Your task to perform on an android device: install app "Booking.com: Hotels and more" Image 0: 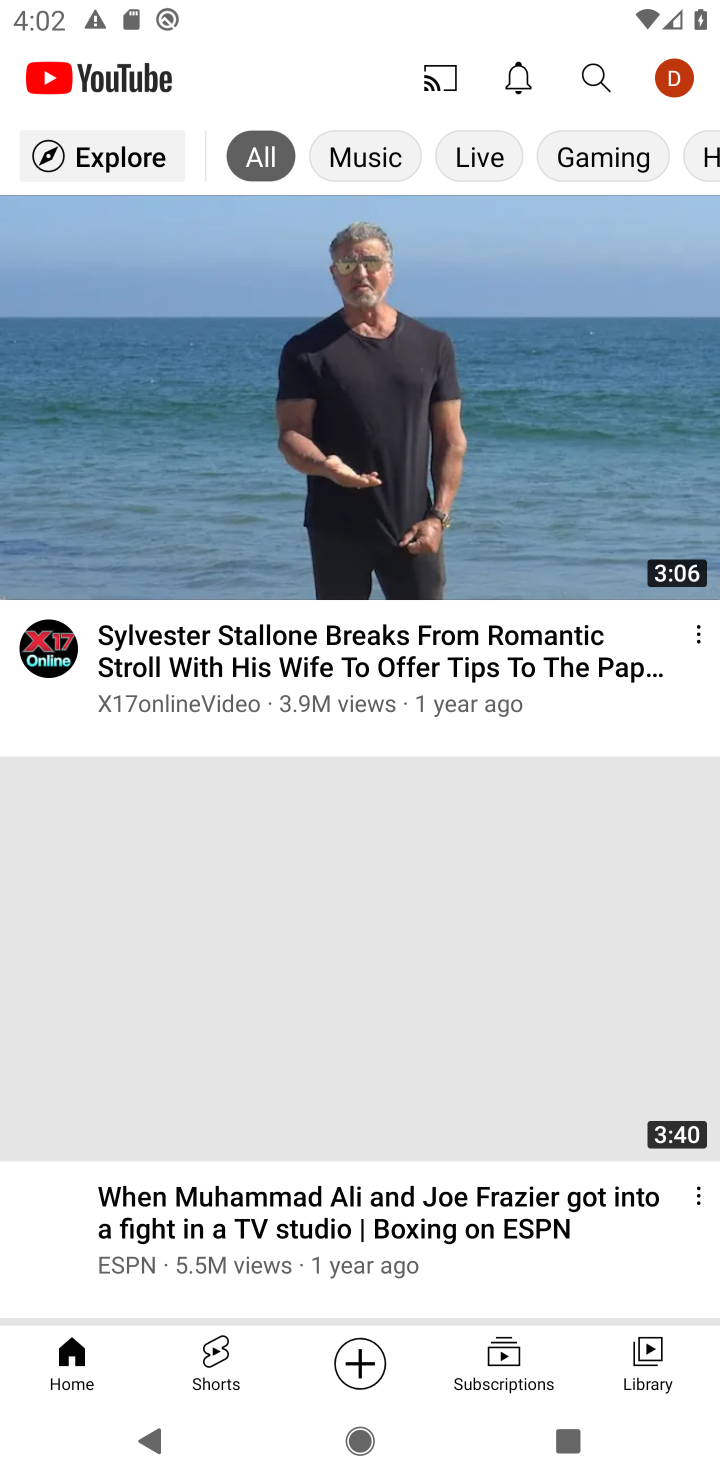
Step 0: press back button
Your task to perform on an android device: install app "Booking.com: Hotels and more" Image 1: 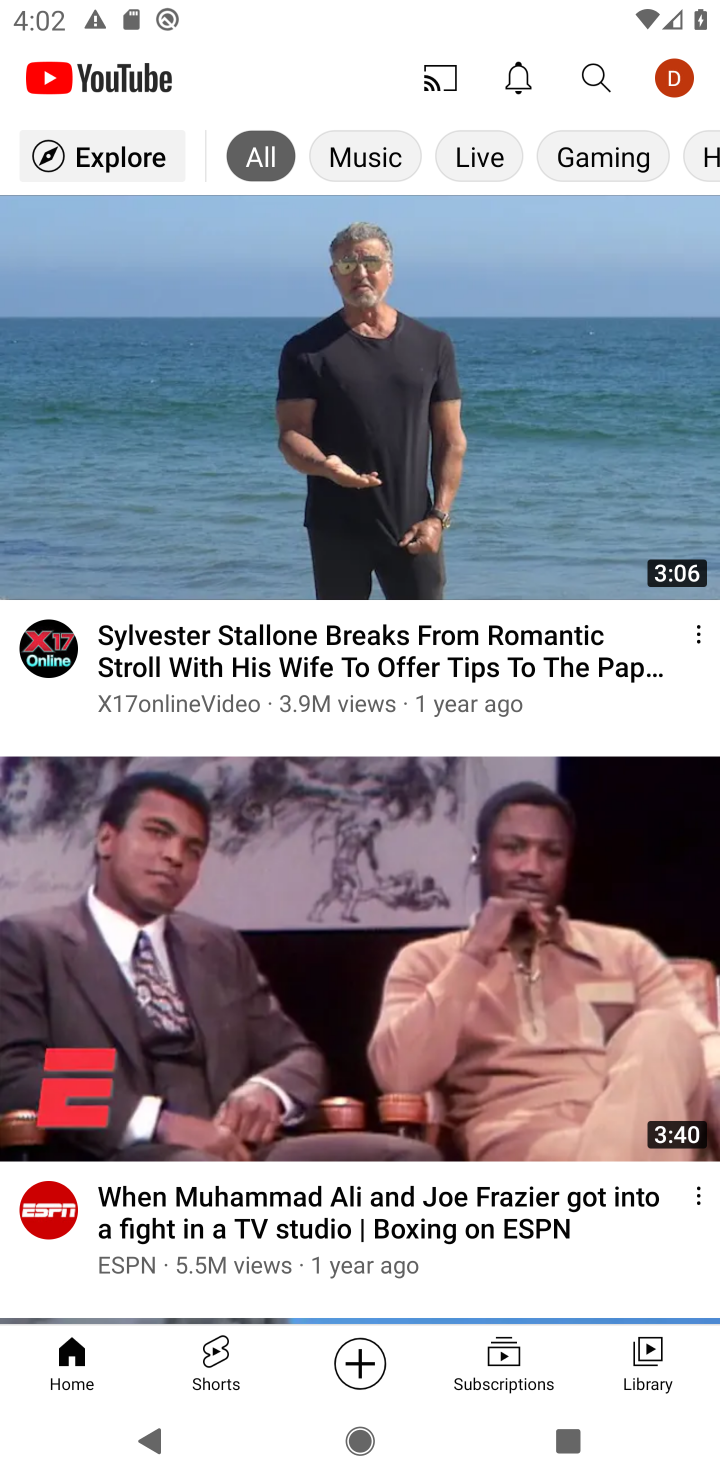
Step 1: press back button
Your task to perform on an android device: install app "Booking.com: Hotels and more" Image 2: 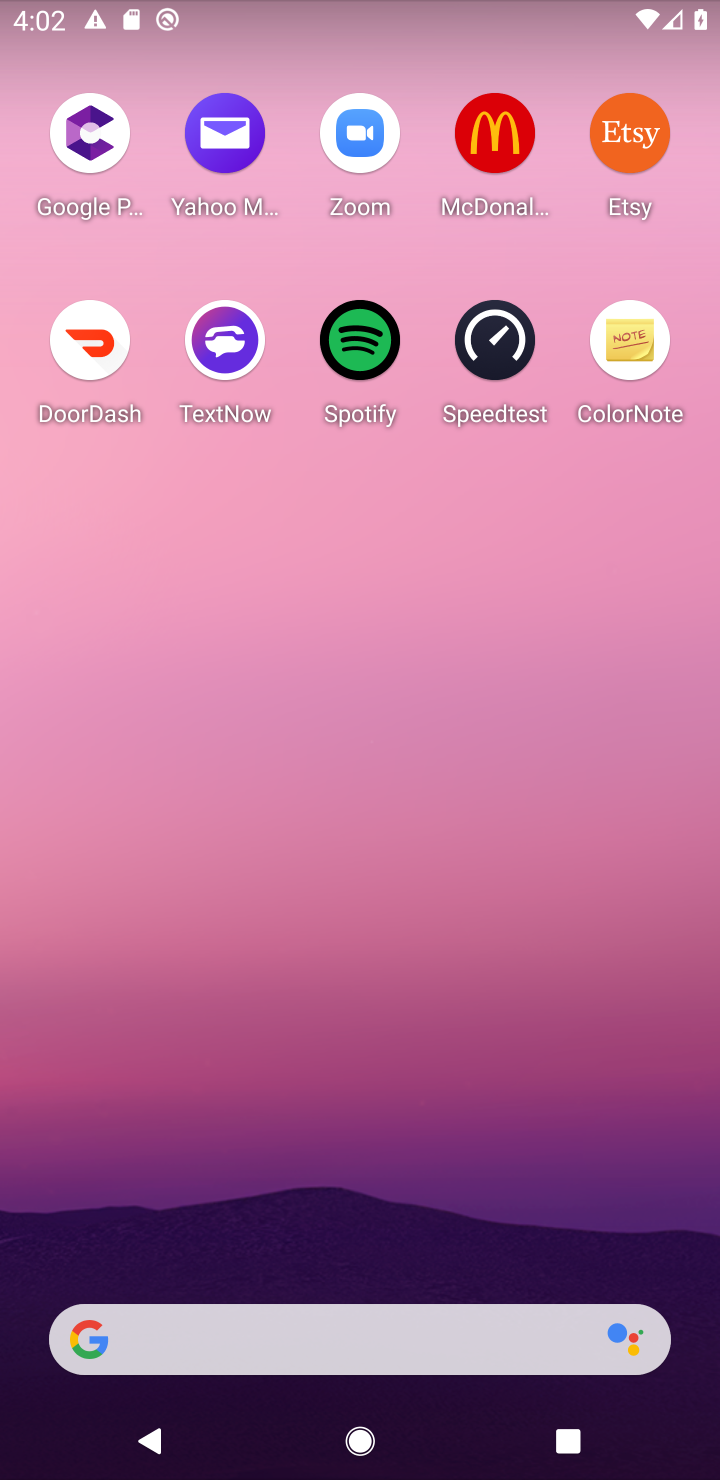
Step 2: press back button
Your task to perform on an android device: install app "Booking.com: Hotels and more" Image 3: 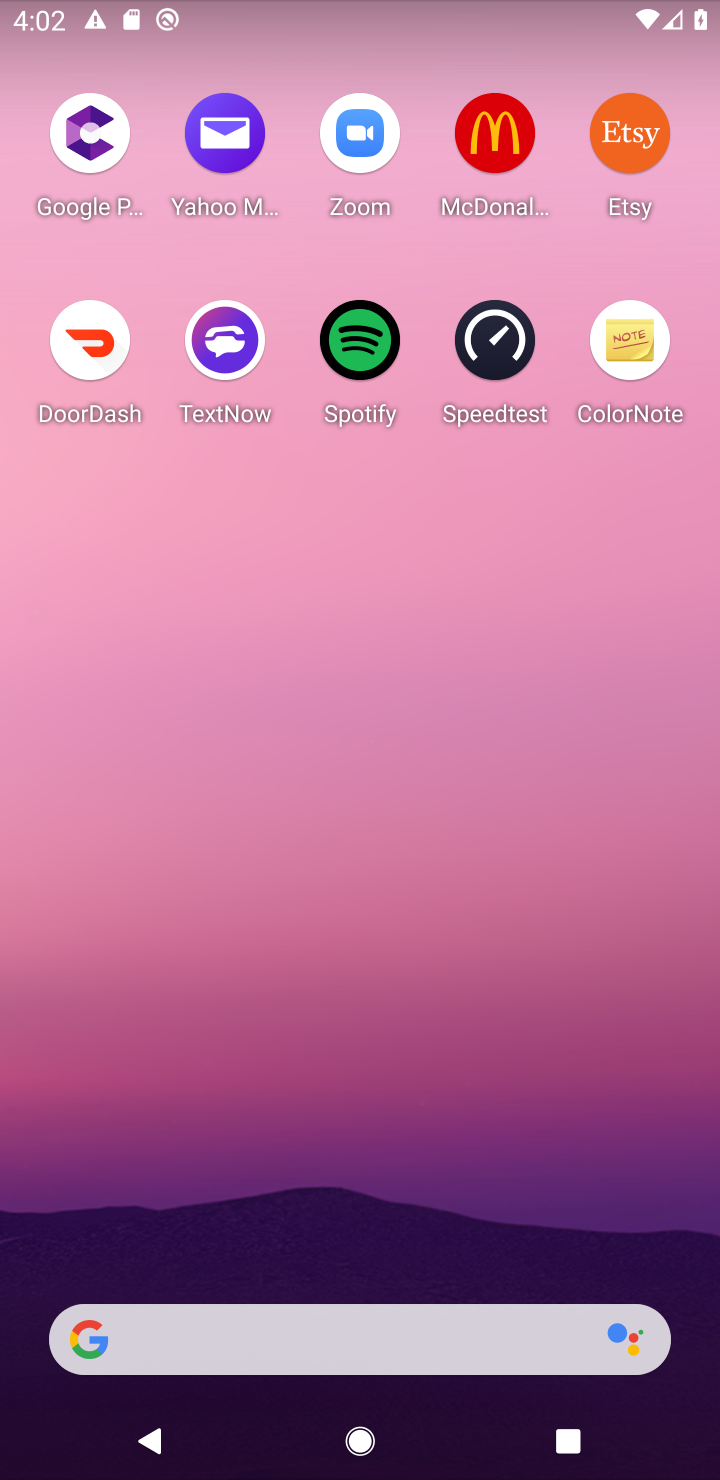
Step 3: press home button
Your task to perform on an android device: install app "Booking.com: Hotels and more" Image 4: 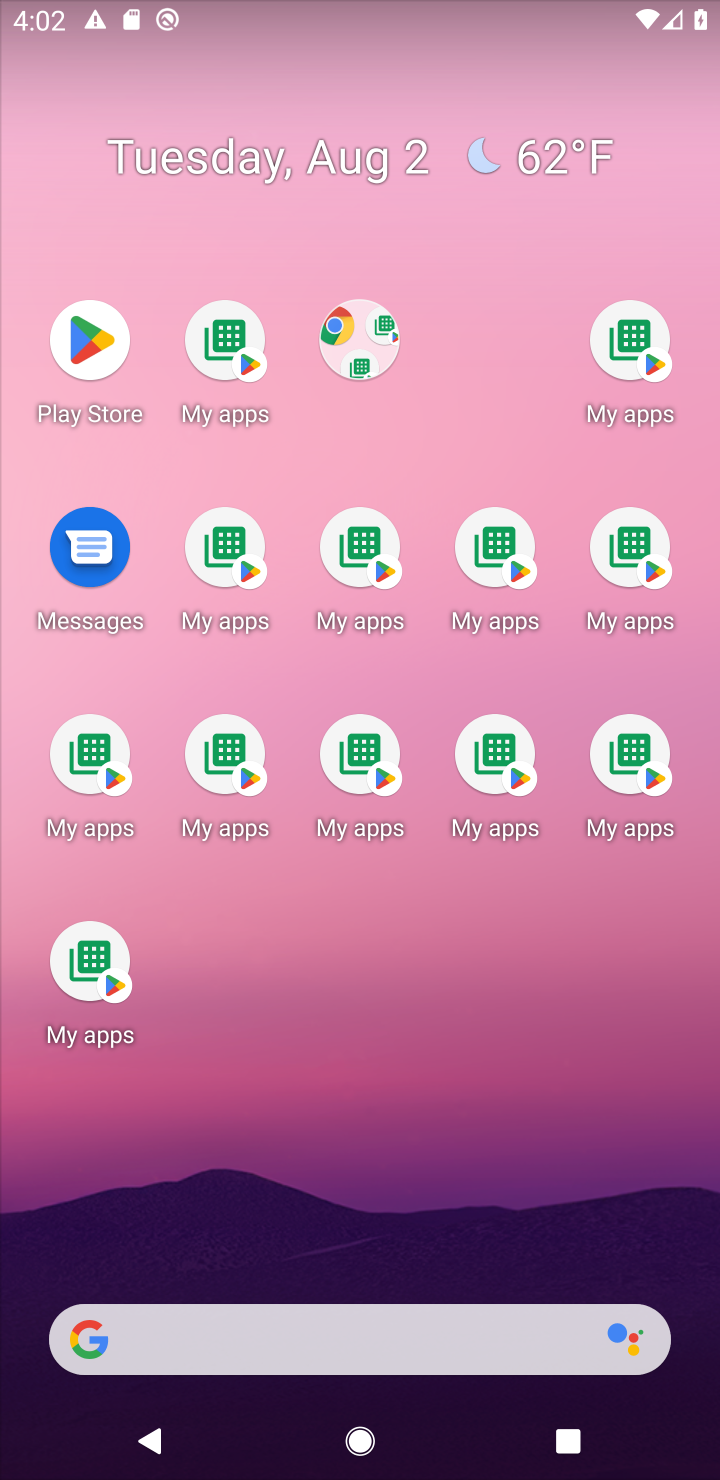
Step 4: drag from (390, 988) to (272, 187)
Your task to perform on an android device: install app "Booking.com: Hotels and more" Image 5: 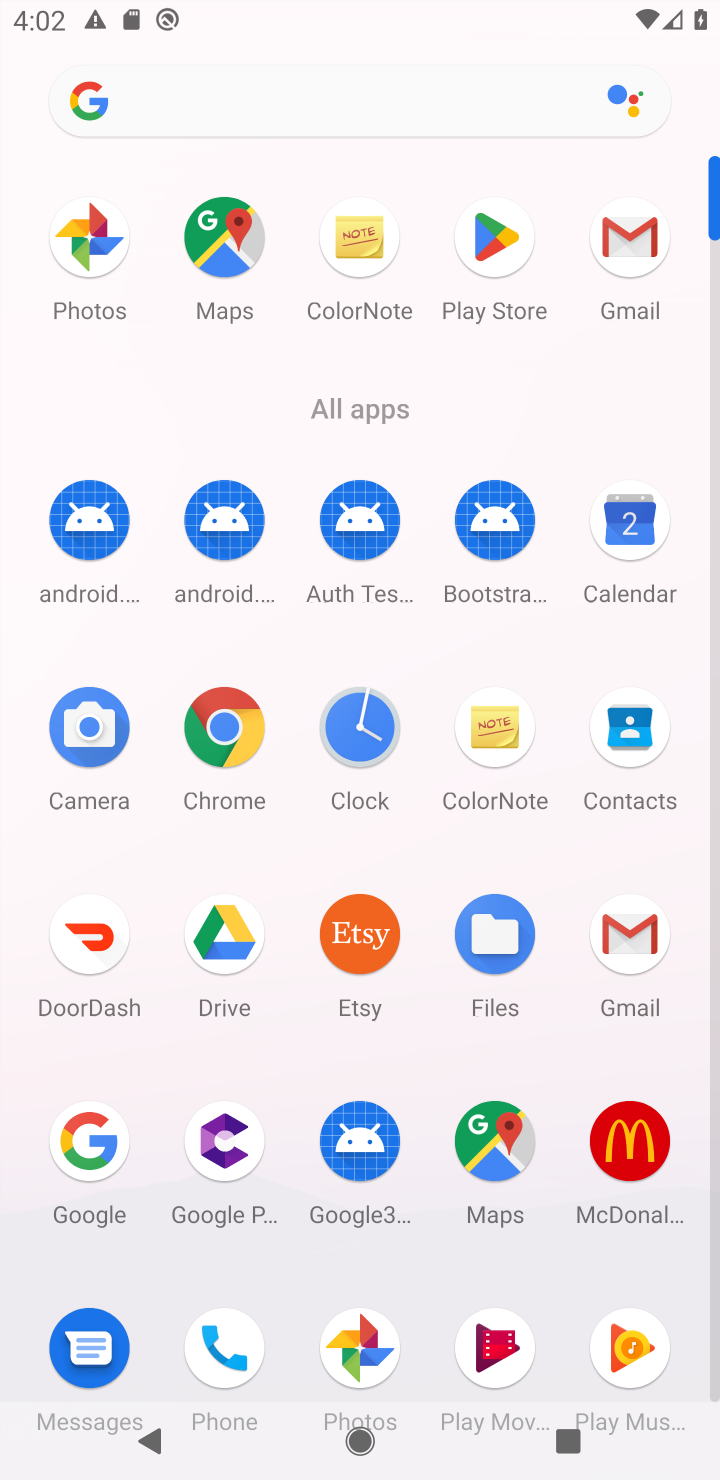
Step 5: click (483, 259)
Your task to perform on an android device: install app "Booking.com: Hotels and more" Image 6: 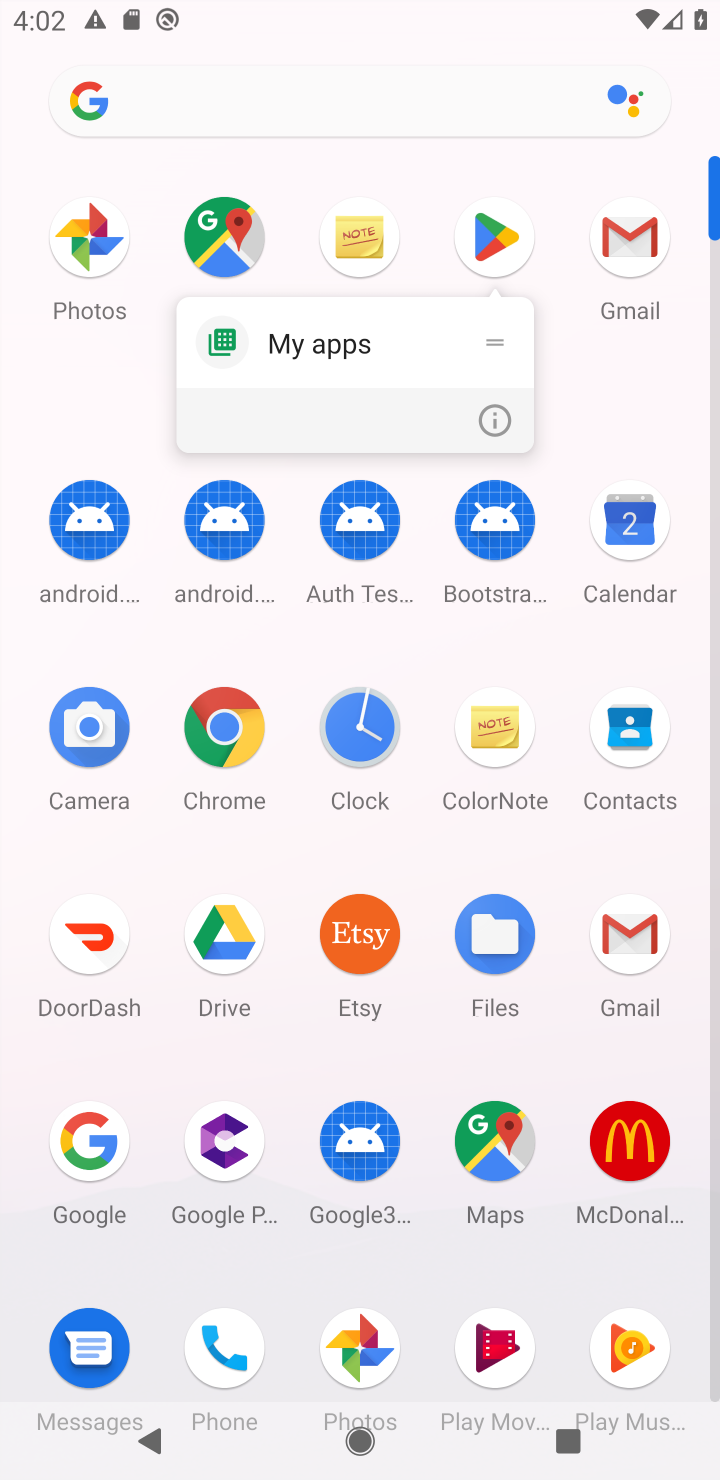
Step 6: click (483, 259)
Your task to perform on an android device: install app "Booking.com: Hotels and more" Image 7: 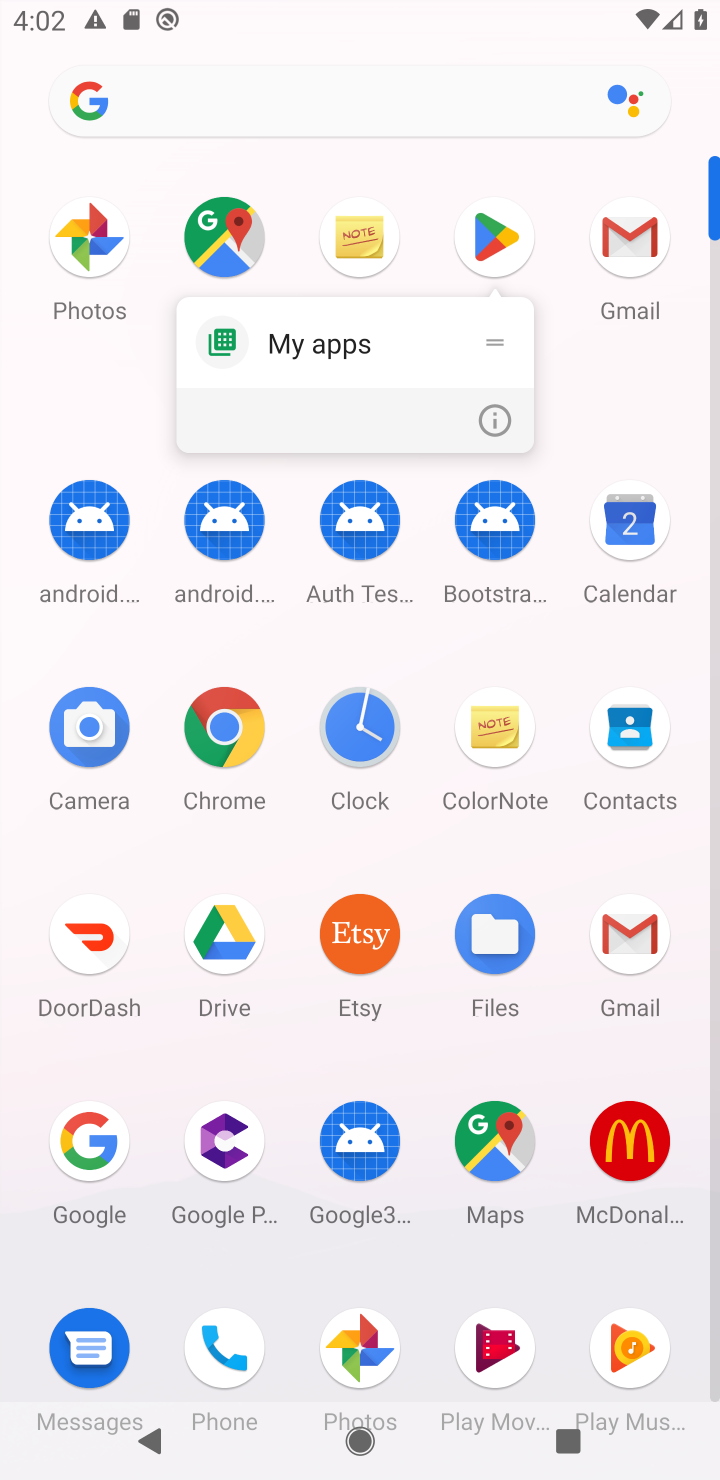
Step 7: click (489, 250)
Your task to perform on an android device: install app "Booking.com: Hotels and more" Image 8: 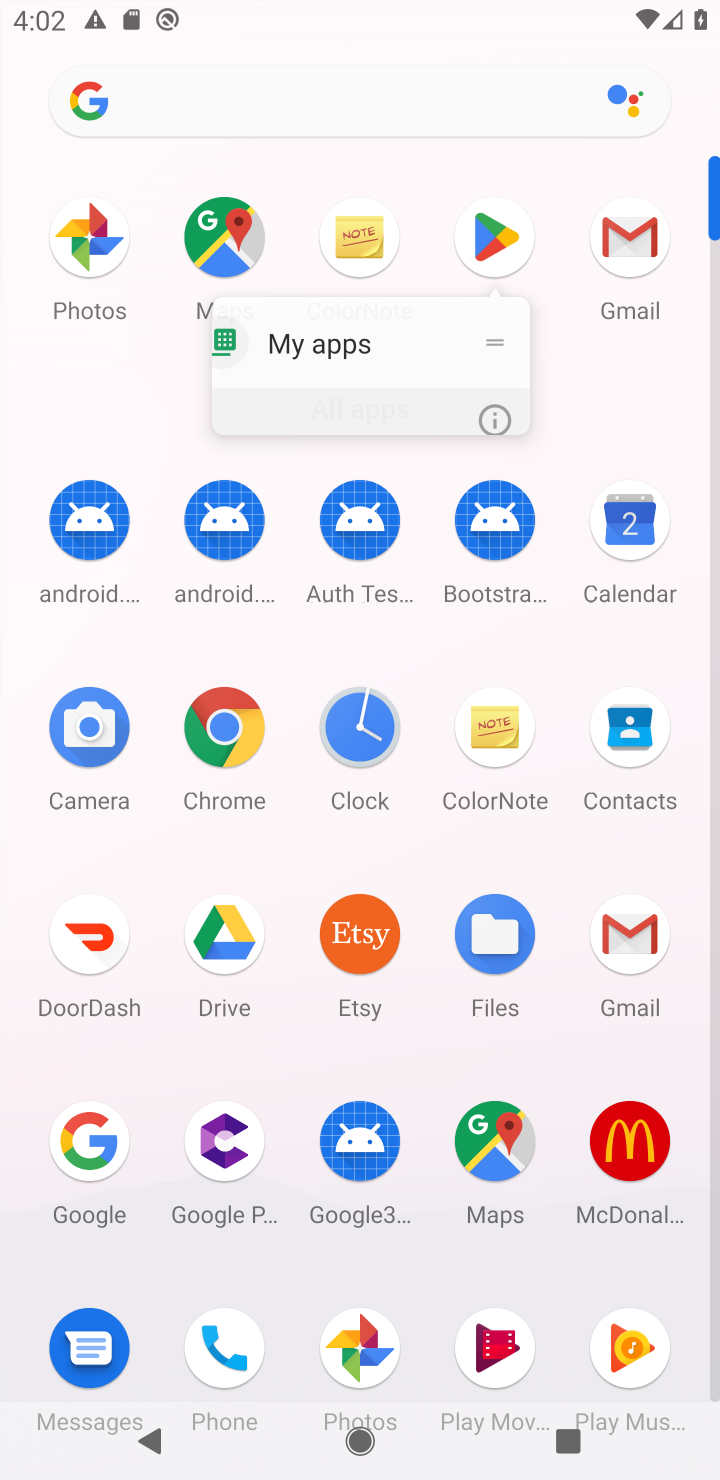
Step 8: click (324, 334)
Your task to perform on an android device: install app "Booking.com: Hotels and more" Image 9: 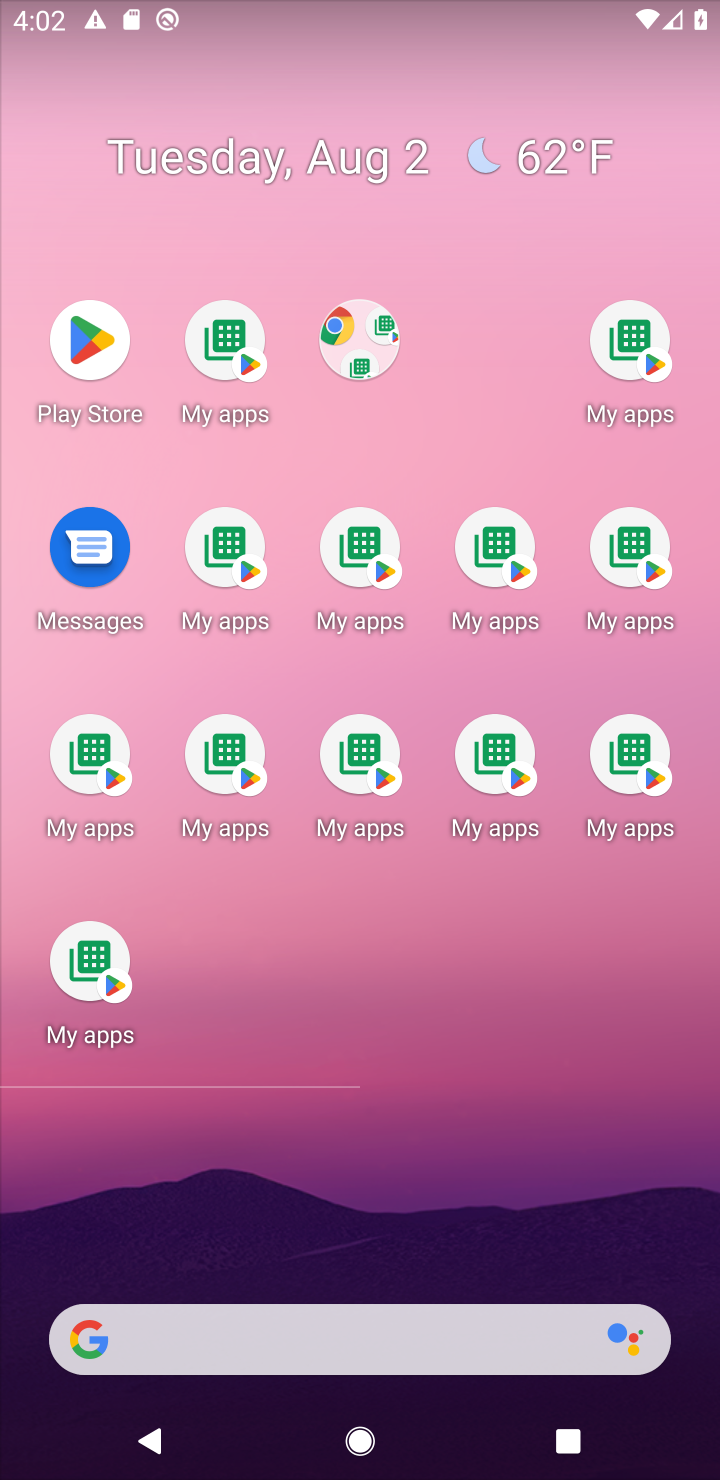
Step 9: click (489, 299)
Your task to perform on an android device: install app "Booking.com: Hotels and more" Image 10: 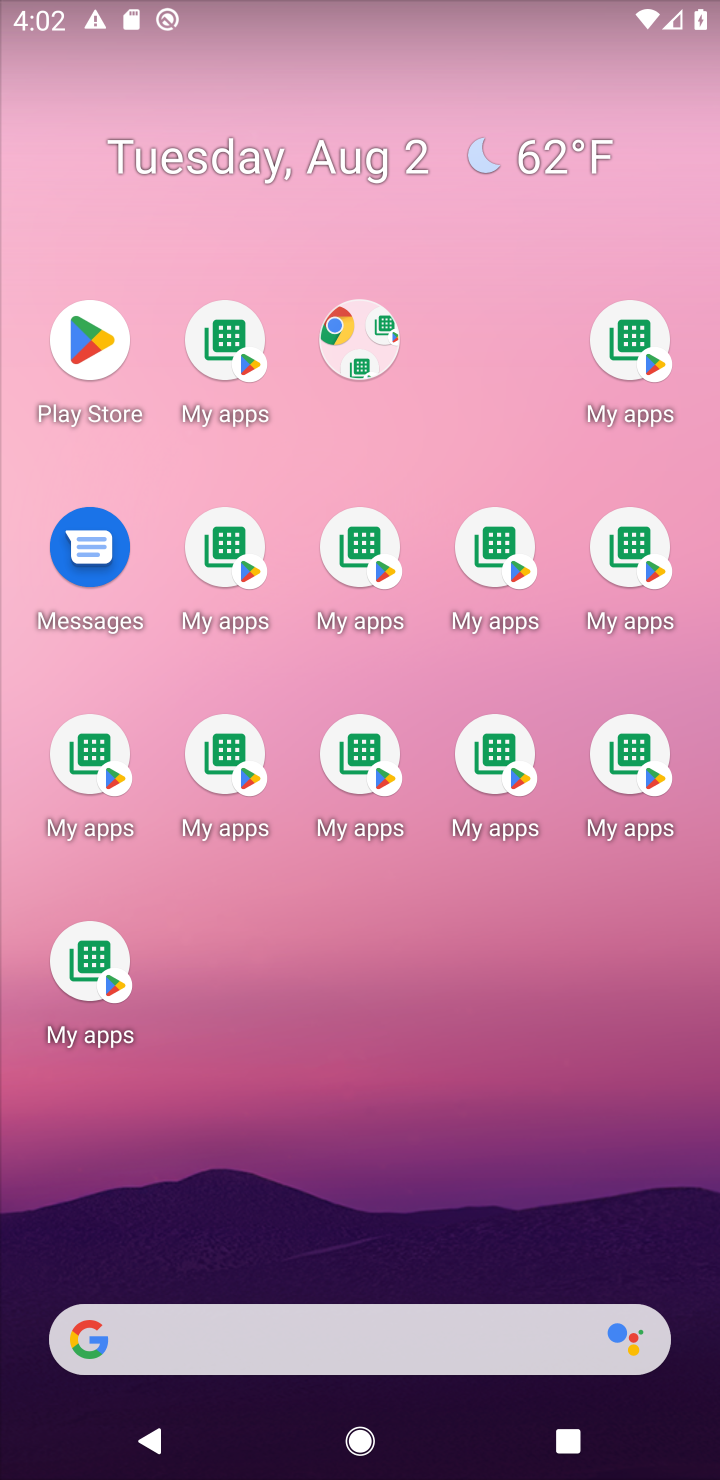
Step 10: click (50, 316)
Your task to perform on an android device: install app "Booking.com: Hotels and more" Image 11: 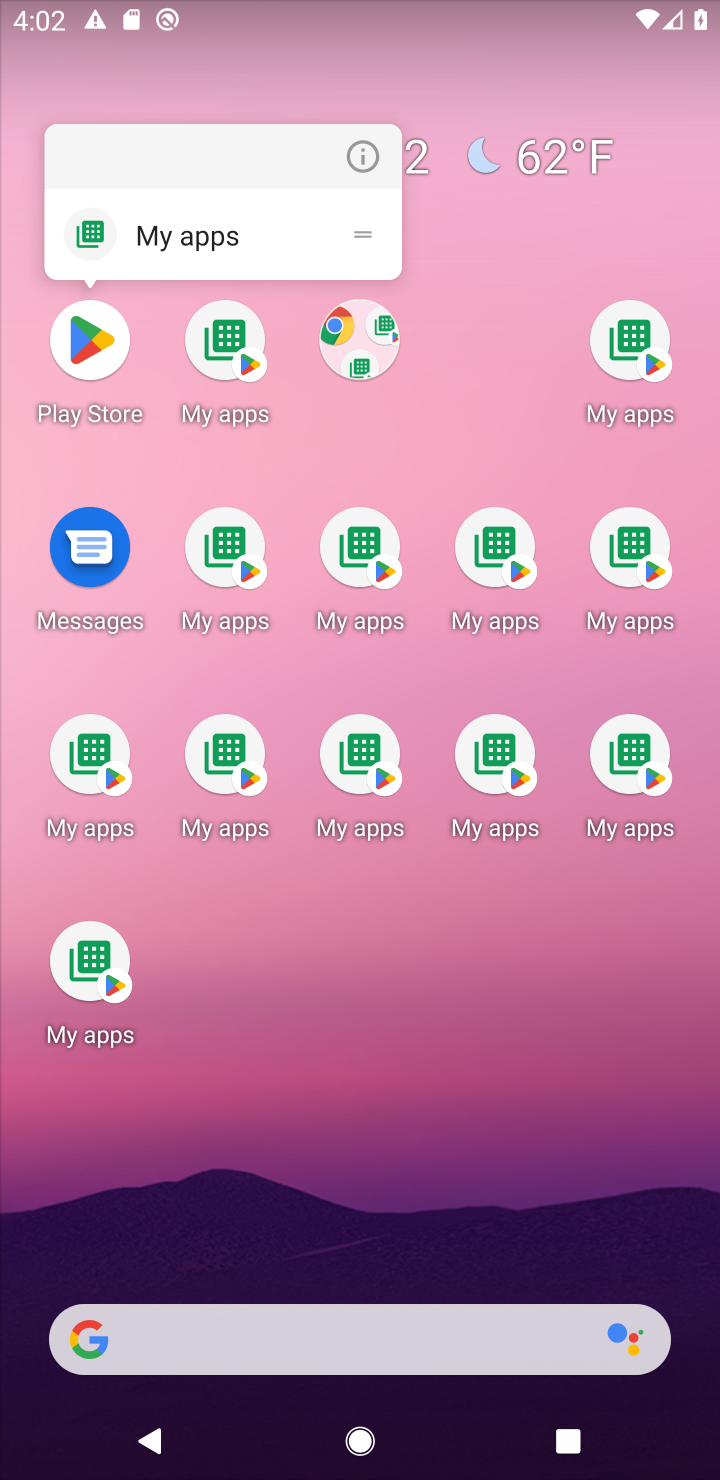
Step 11: click (72, 340)
Your task to perform on an android device: install app "Booking.com: Hotels and more" Image 12: 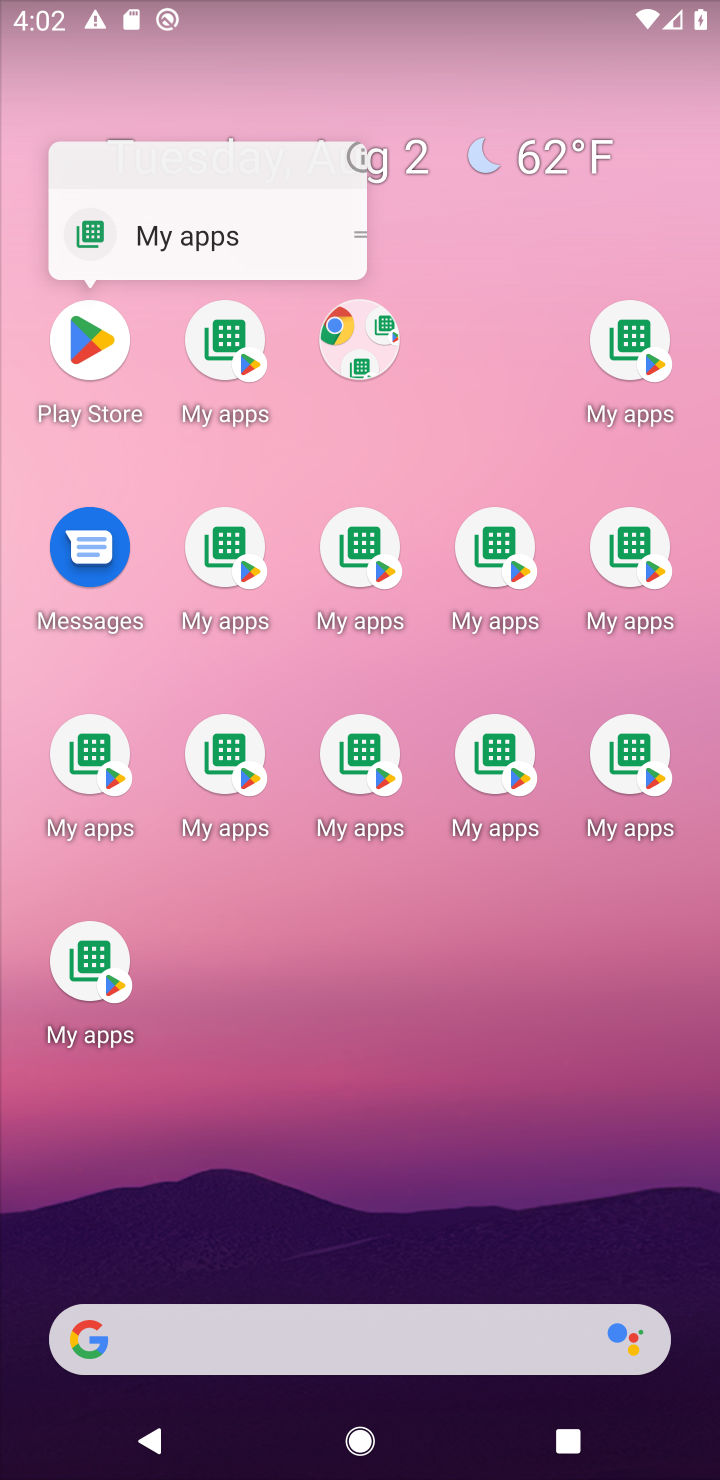
Step 12: click (73, 333)
Your task to perform on an android device: install app "Booking.com: Hotels and more" Image 13: 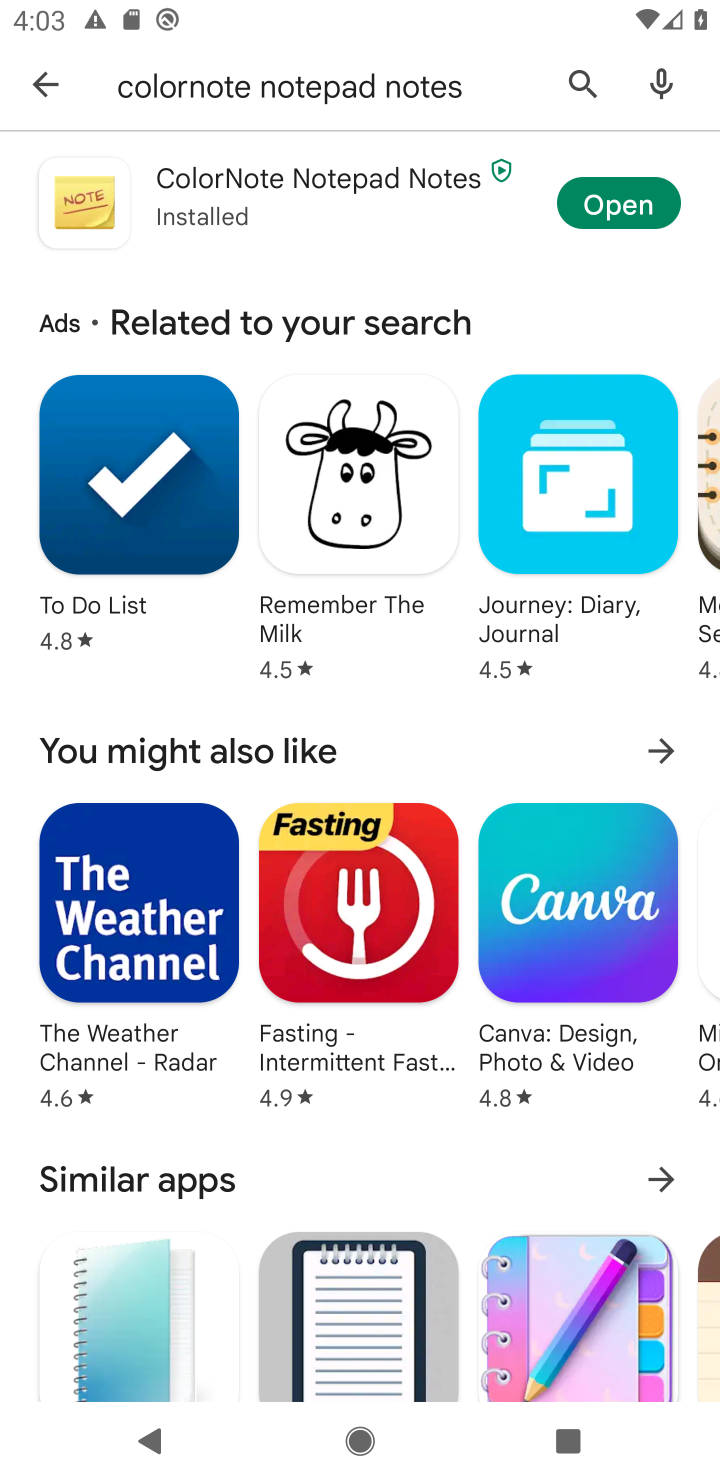
Step 13: click (573, 81)
Your task to perform on an android device: install app "Booking.com: Hotels and more" Image 14: 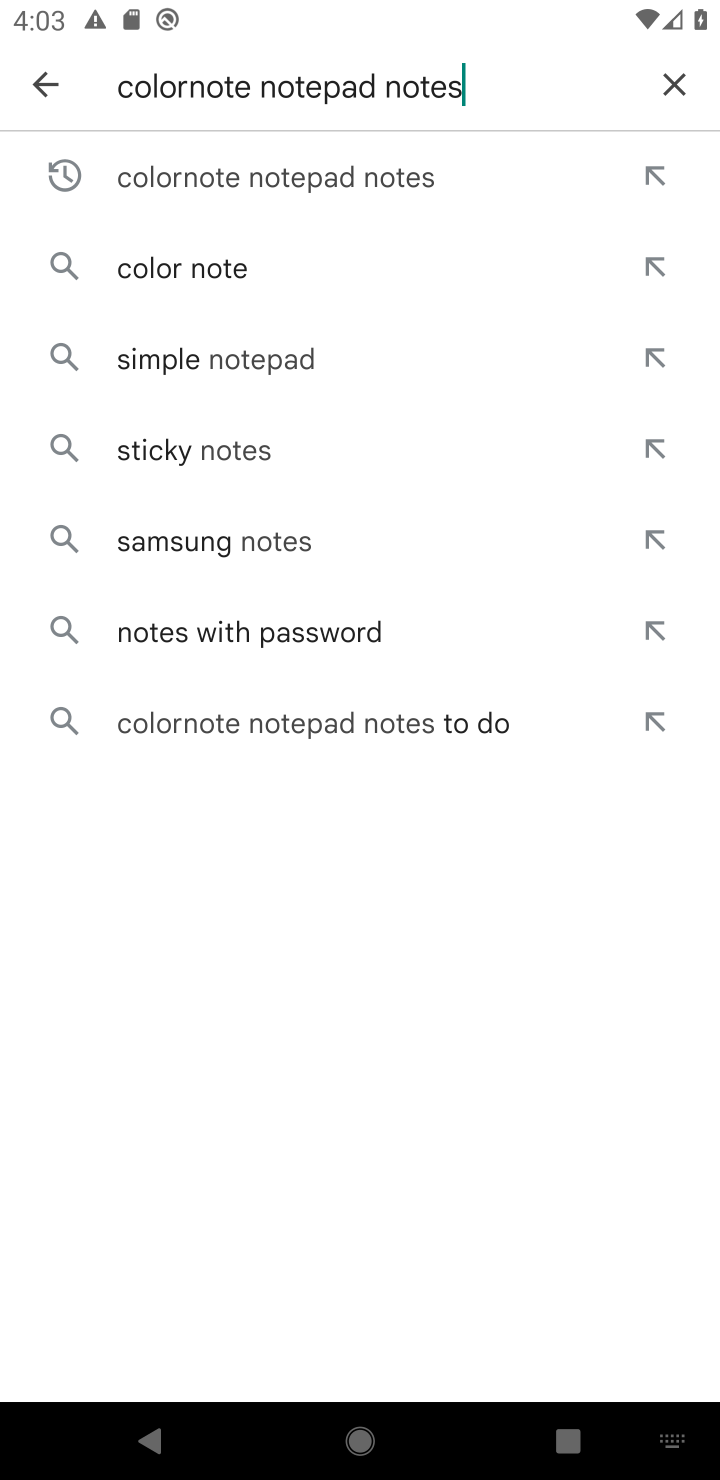
Step 14: click (654, 66)
Your task to perform on an android device: install app "Booking.com: Hotels and more" Image 15: 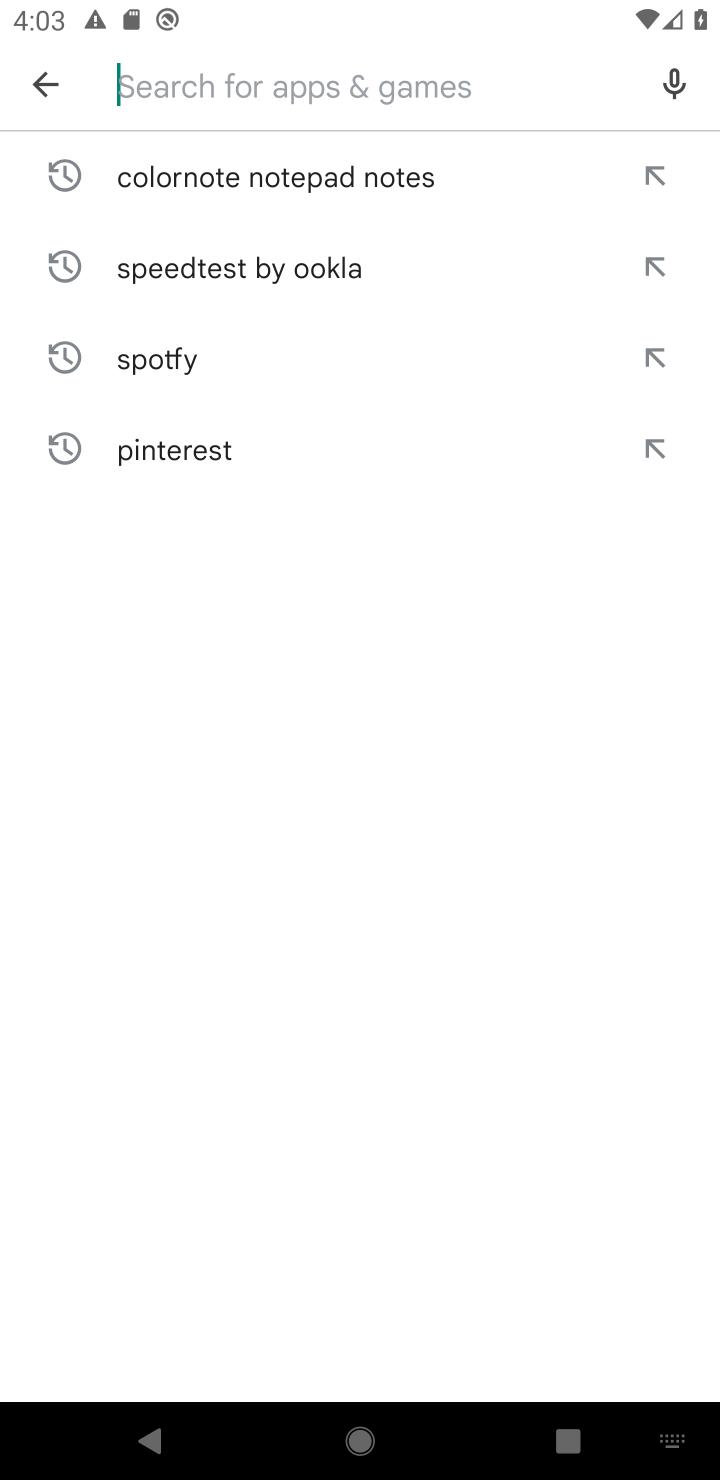
Step 15: type "booking .com"
Your task to perform on an android device: install app "Booking.com: Hotels and more" Image 16: 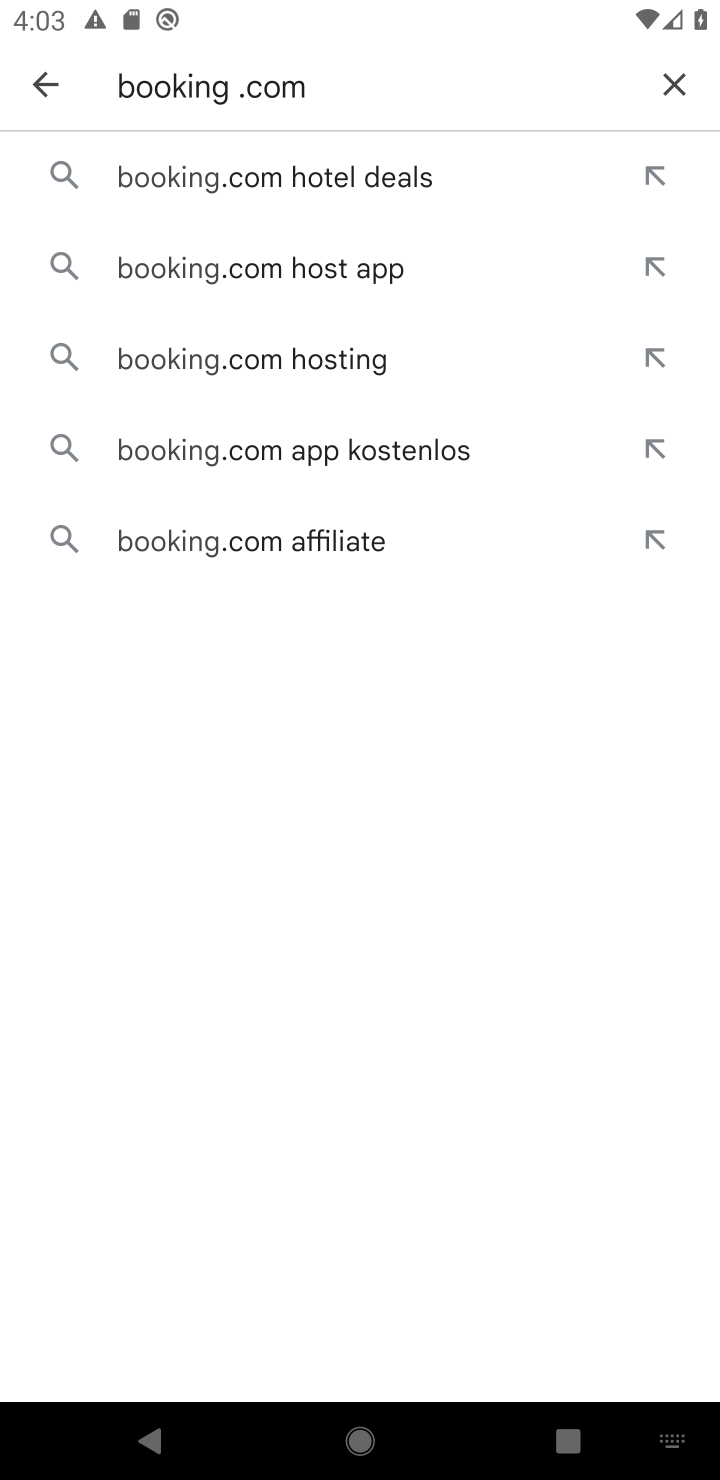
Step 16: click (245, 186)
Your task to perform on an android device: install app "Booking.com: Hotels and more" Image 17: 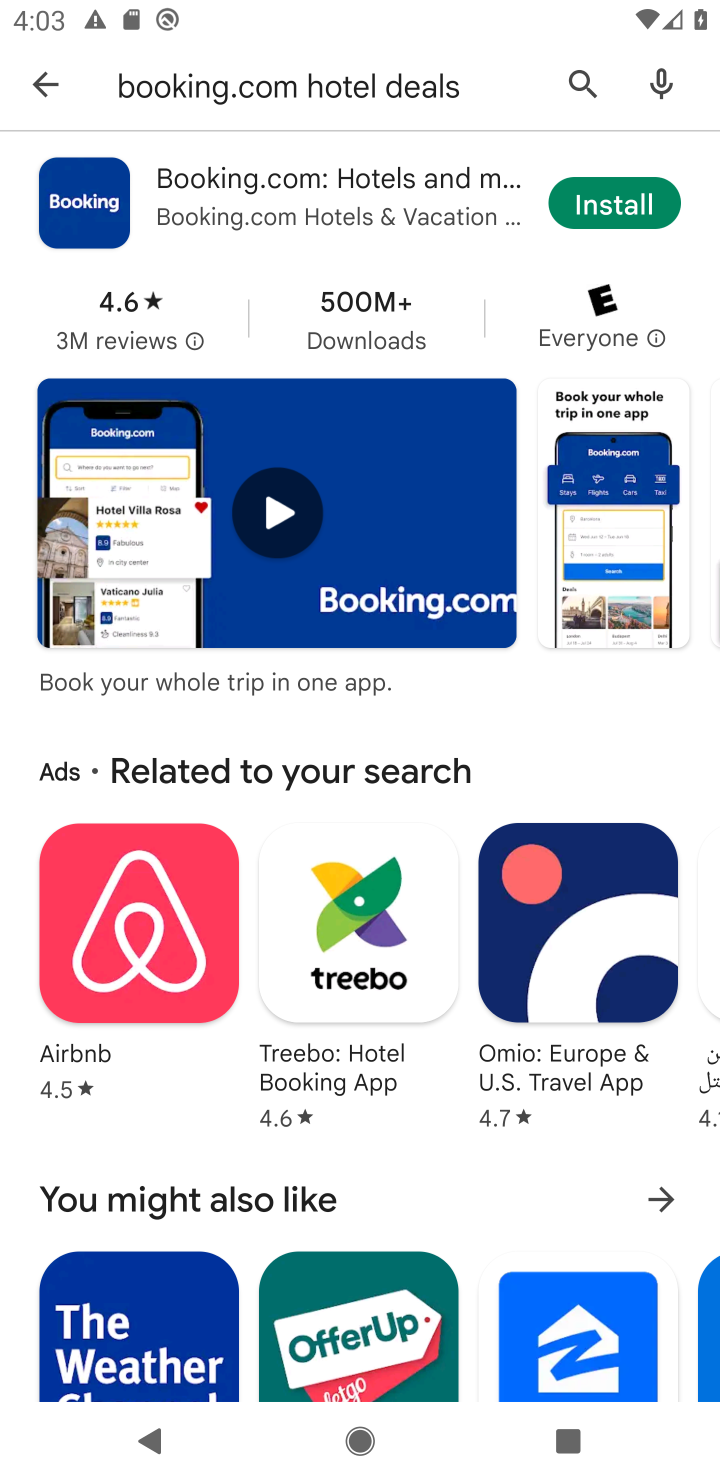
Step 17: click (615, 201)
Your task to perform on an android device: install app "Booking.com: Hotels and more" Image 18: 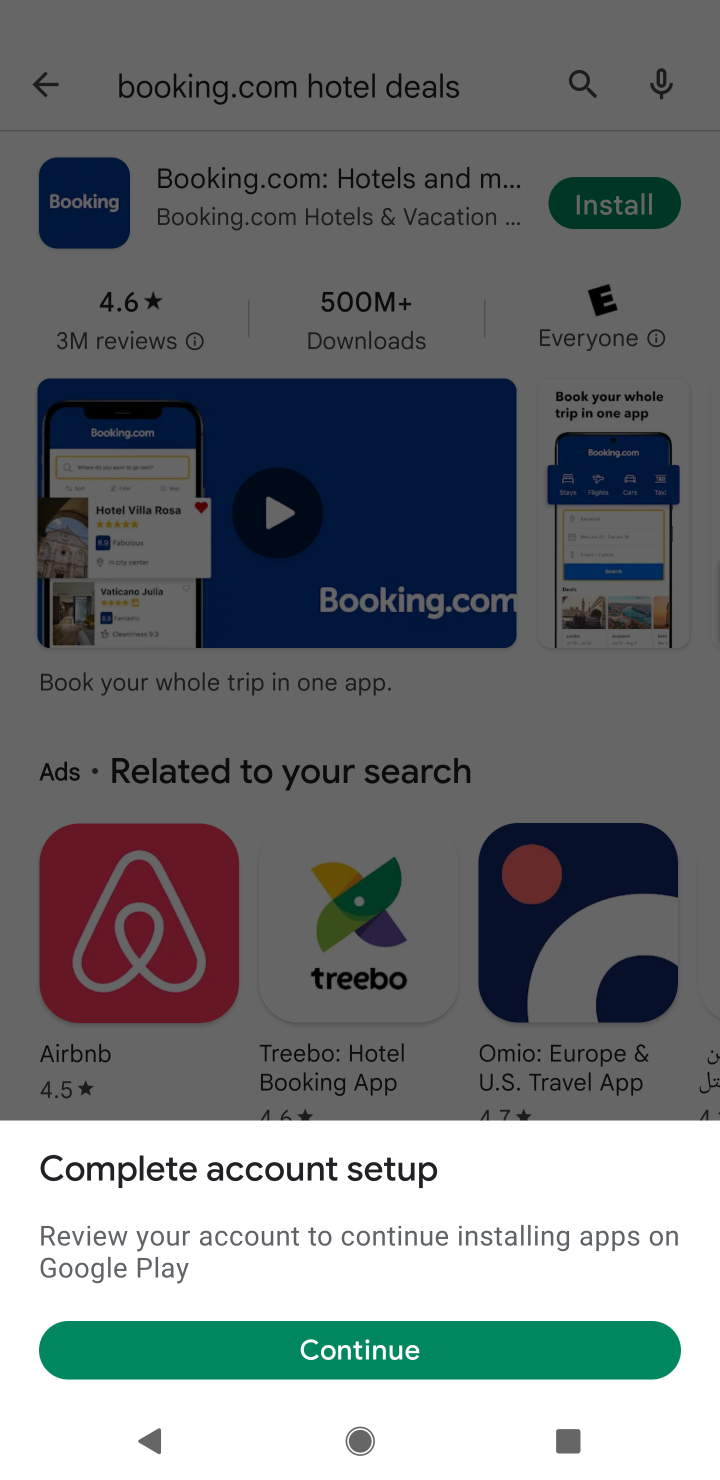
Step 18: click (435, 1344)
Your task to perform on an android device: install app "Booking.com: Hotels and more" Image 19: 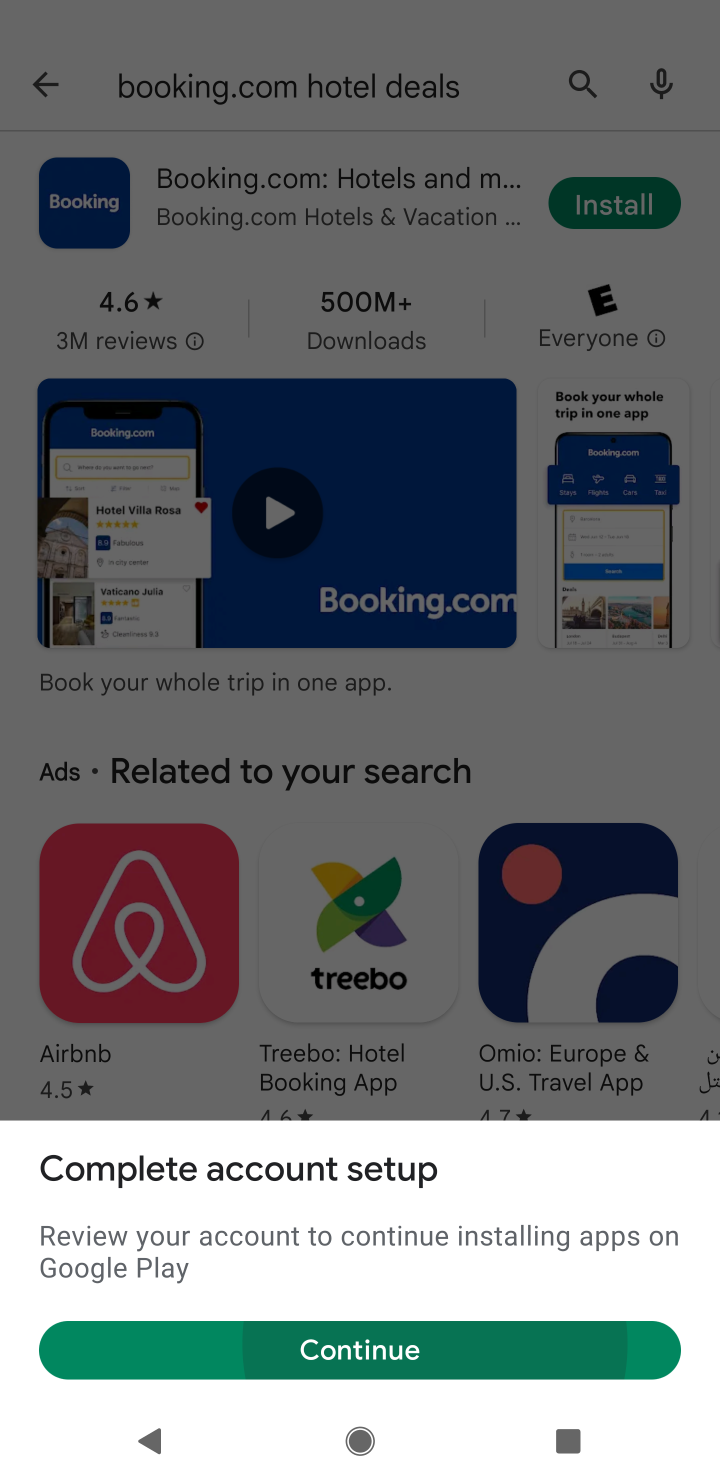
Step 19: click (427, 1362)
Your task to perform on an android device: install app "Booking.com: Hotels and more" Image 20: 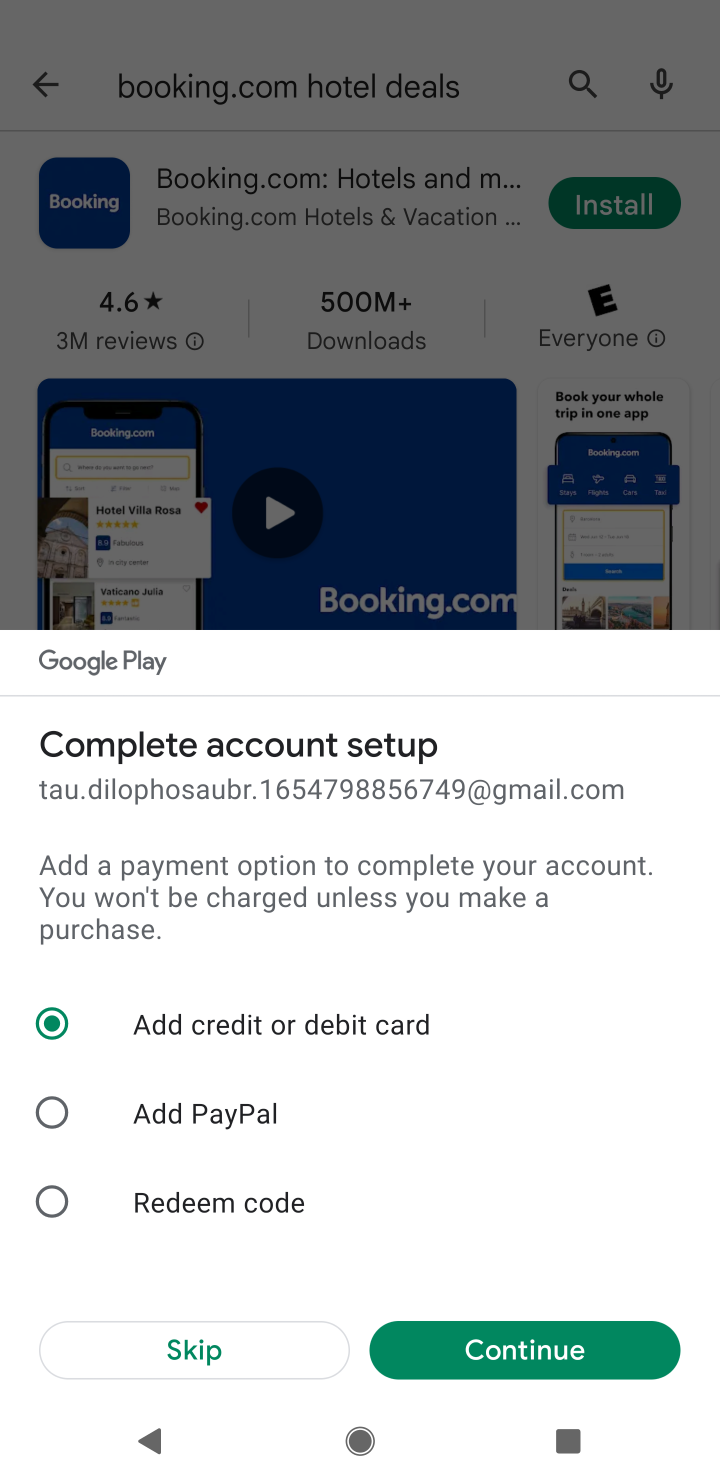
Step 20: click (247, 1348)
Your task to perform on an android device: install app "Booking.com: Hotels and more" Image 21: 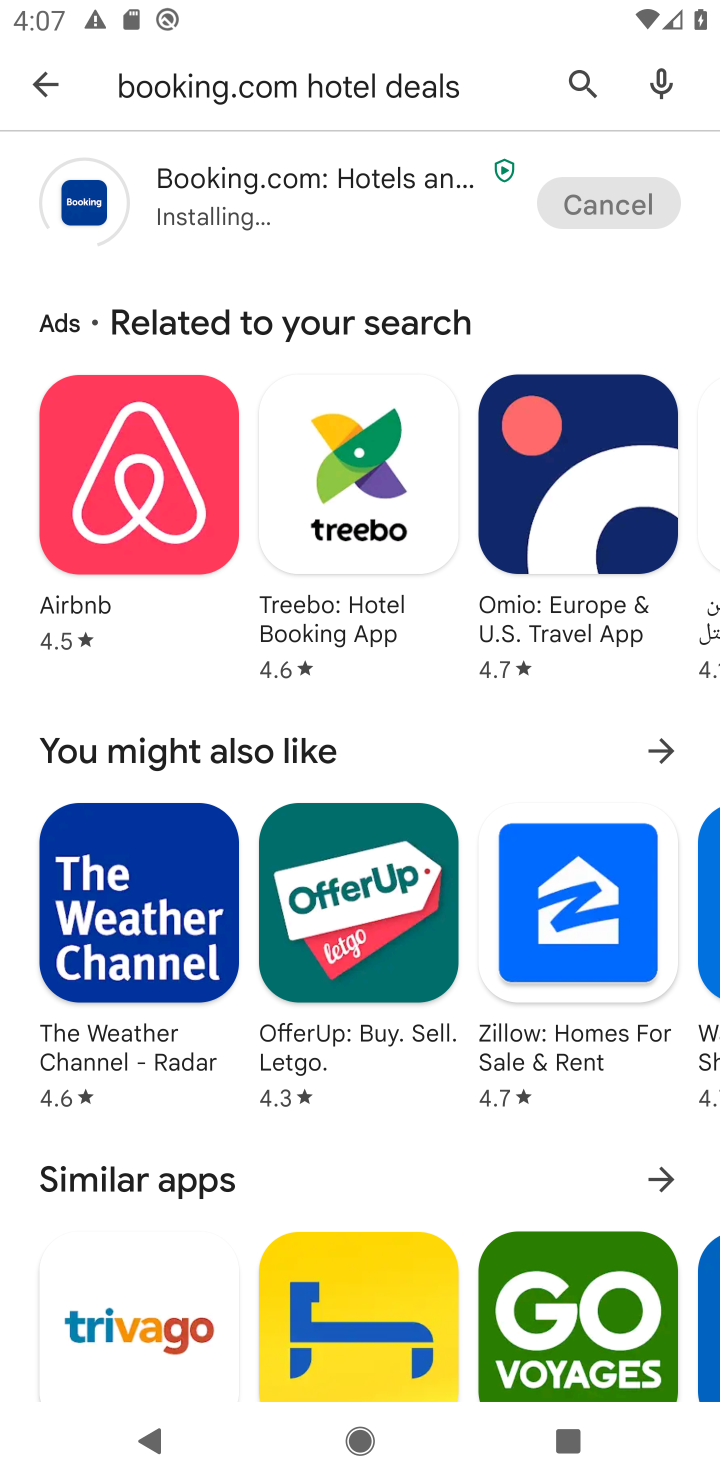
Step 21: task complete